Your task to perform on an android device: Go to settings Image 0: 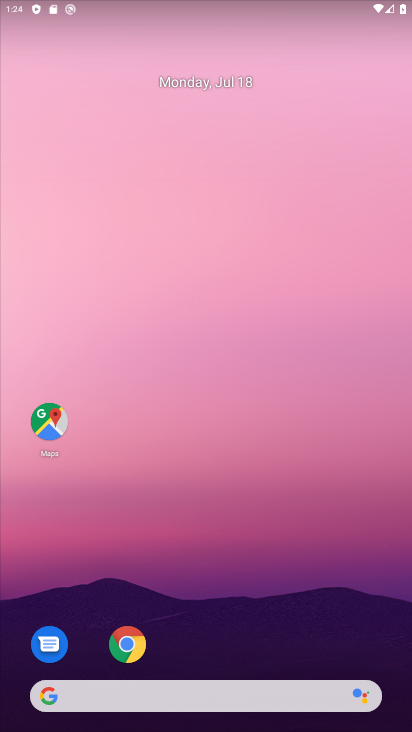
Step 0: drag from (246, 596) to (272, 1)
Your task to perform on an android device: Go to settings Image 1: 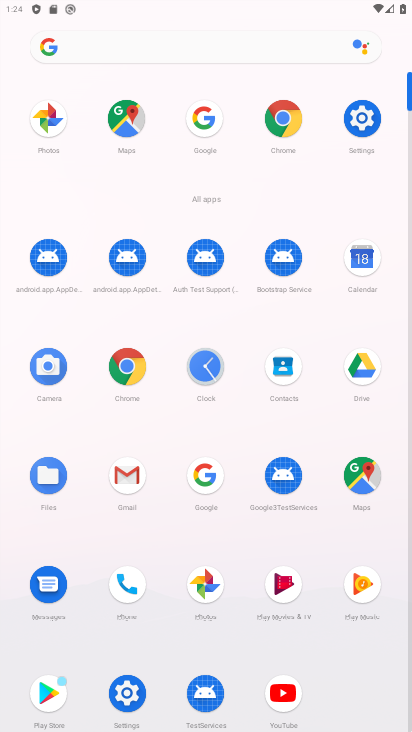
Step 1: click (352, 110)
Your task to perform on an android device: Go to settings Image 2: 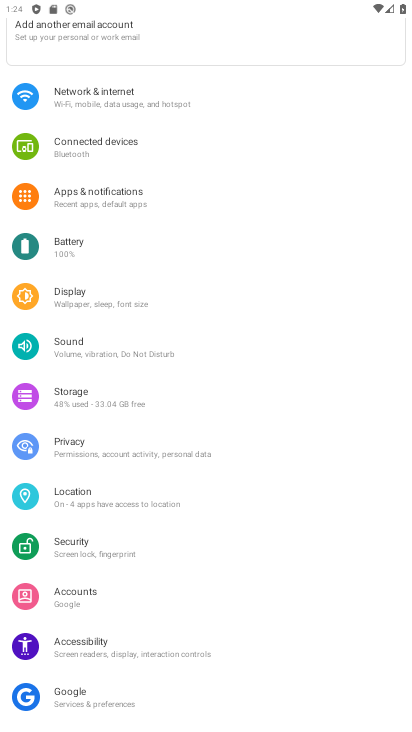
Step 2: task complete